Your task to perform on an android device: set default search engine in the chrome app Image 0: 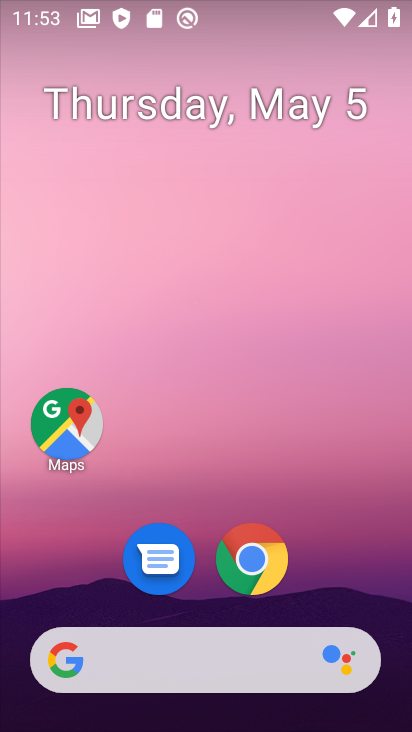
Step 0: click (259, 556)
Your task to perform on an android device: set default search engine in the chrome app Image 1: 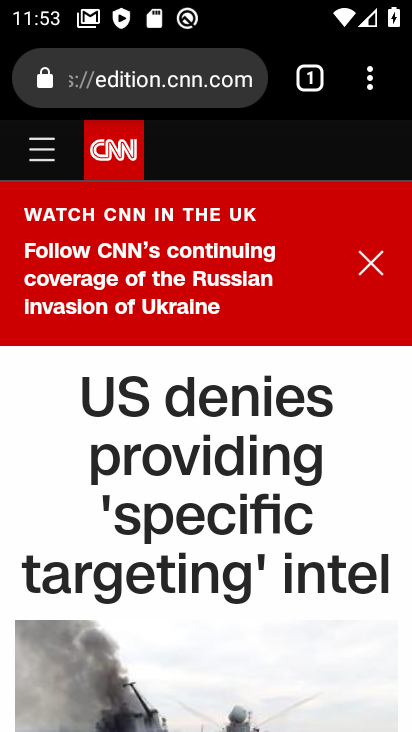
Step 1: click (376, 77)
Your task to perform on an android device: set default search engine in the chrome app Image 2: 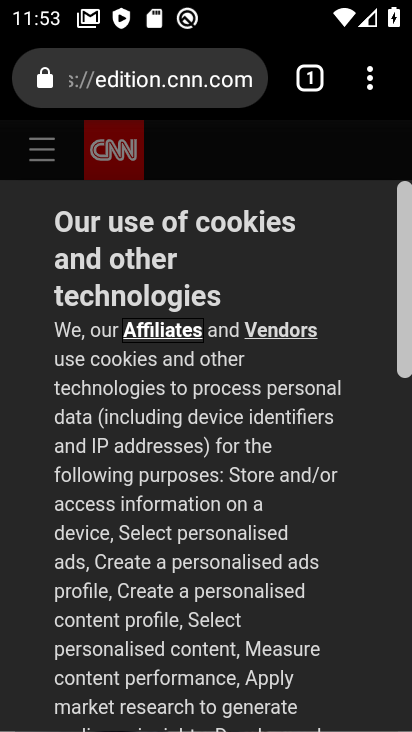
Step 2: click (369, 66)
Your task to perform on an android device: set default search engine in the chrome app Image 3: 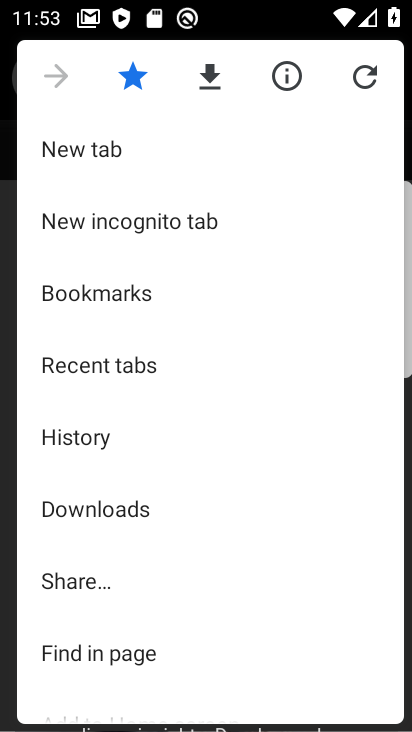
Step 3: drag from (112, 664) to (162, 379)
Your task to perform on an android device: set default search engine in the chrome app Image 4: 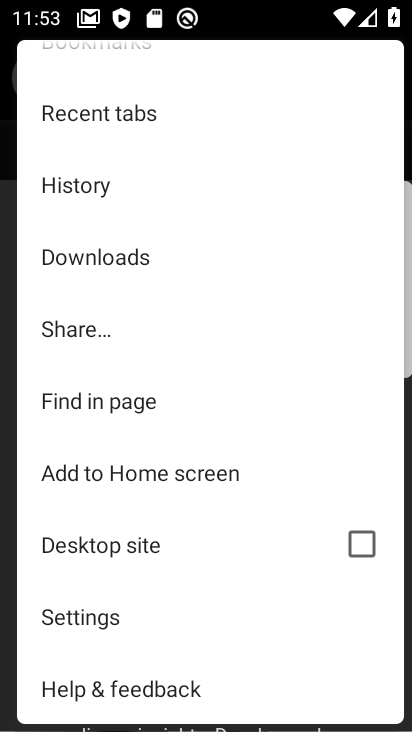
Step 4: click (127, 630)
Your task to perform on an android device: set default search engine in the chrome app Image 5: 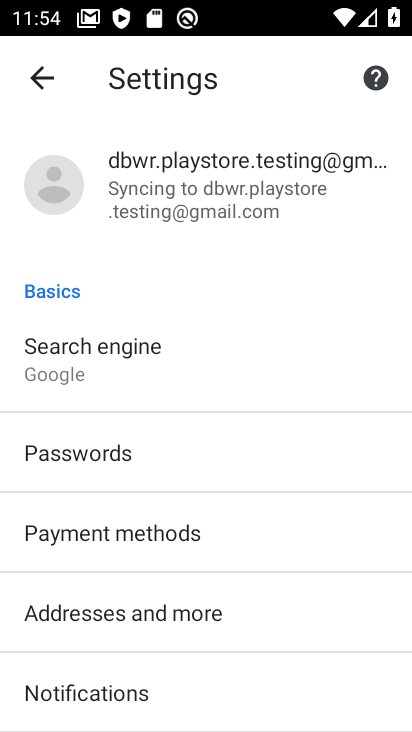
Step 5: click (63, 359)
Your task to perform on an android device: set default search engine in the chrome app Image 6: 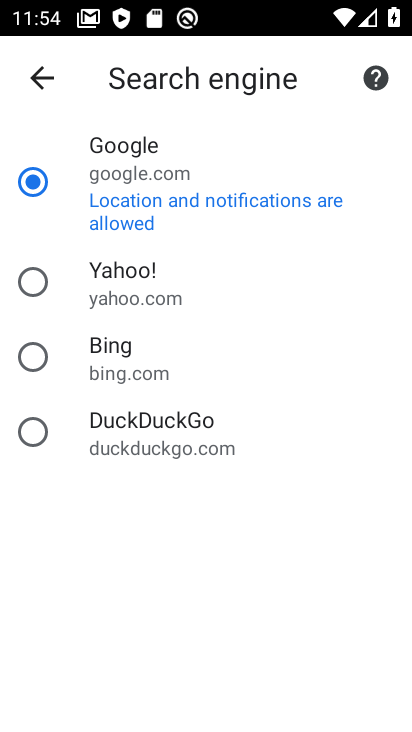
Step 6: click (141, 264)
Your task to perform on an android device: set default search engine in the chrome app Image 7: 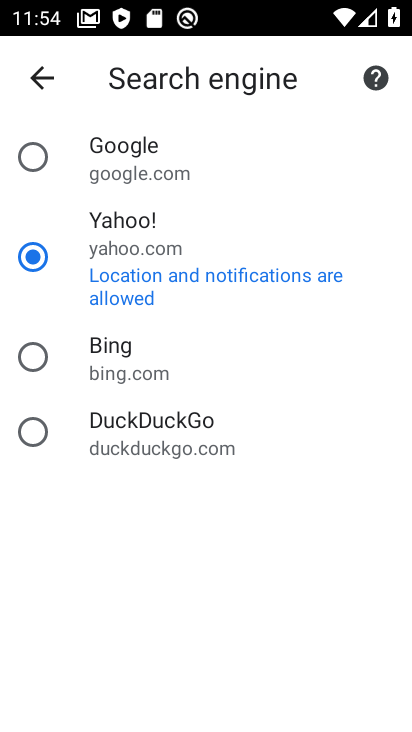
Step 7: task complete